Your task to perform on an android device: change the clock style Image 0: 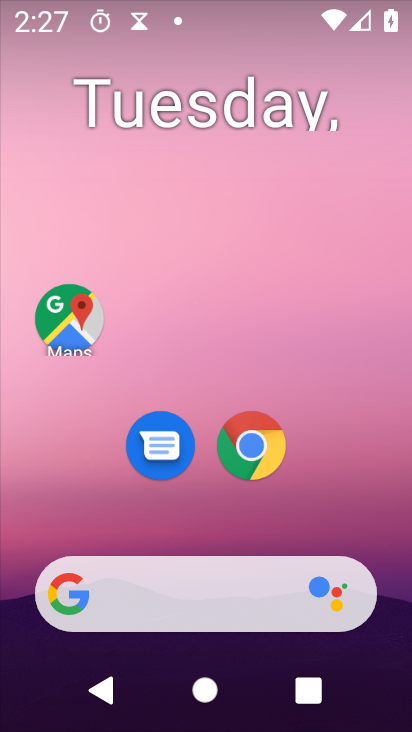
Step 0: drag from (326, 573) to (266, 38)
Your task to perform on an android device: change the clock style Image 1: 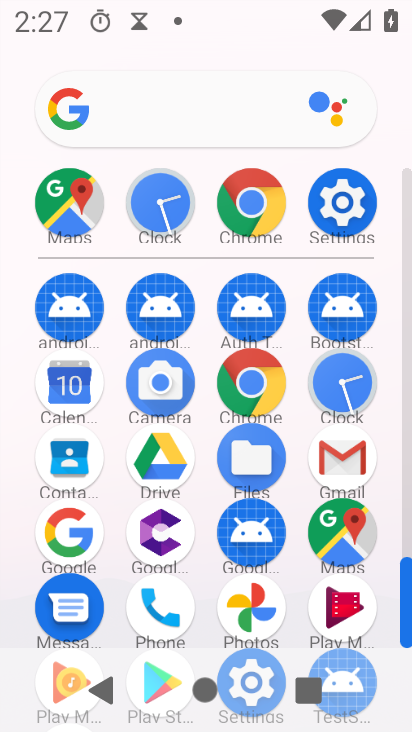
Step 1: click (343, 398)
Your task to perform on an android device: change the clock style Image 2: 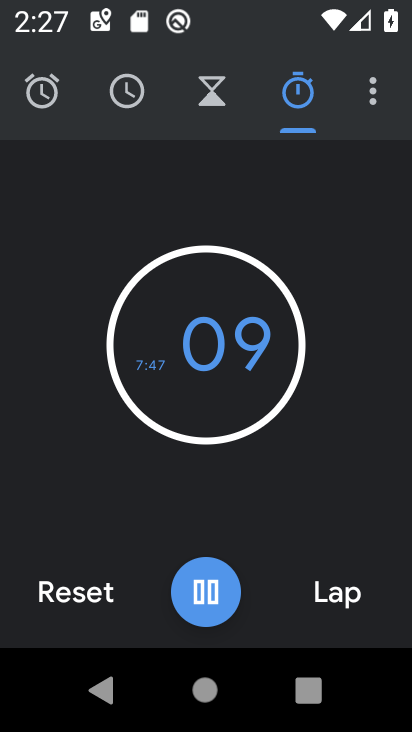
Step 2: click (385, 91)
Your task to perform on an android device: change the clock style Image 3: 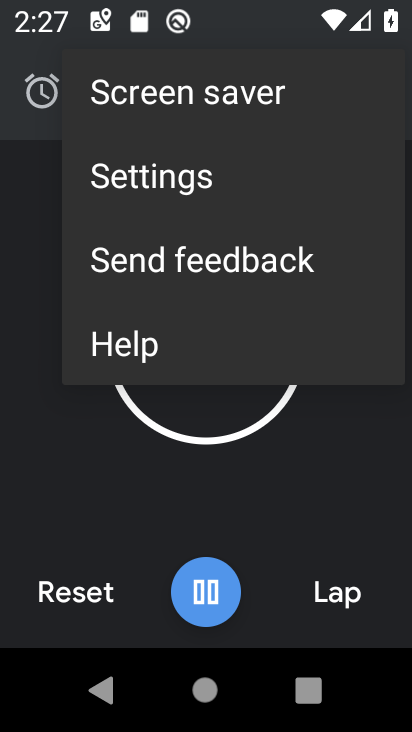
Step 3: click (299, 173)
Your task to perform on an android device: change the clock style Image 4: 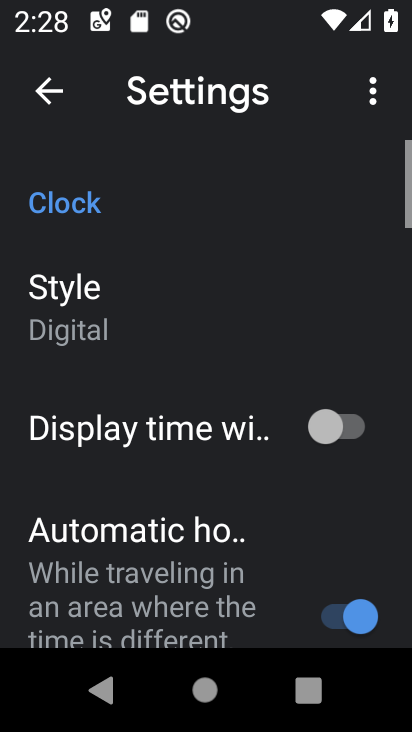
Step 4: click (190, 303)
Your task to perform on an android device: change the clock style Image 5: 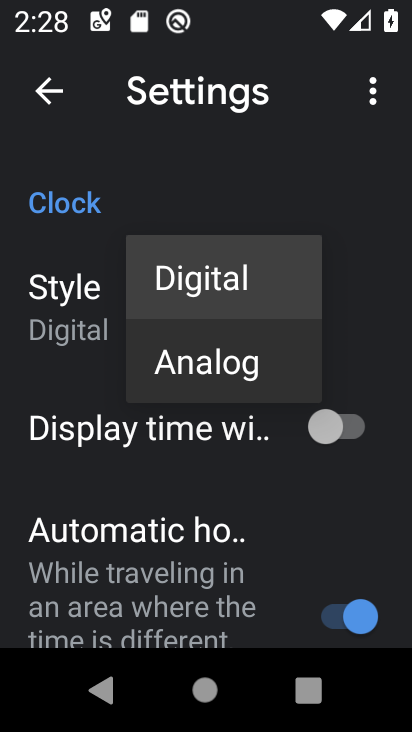
Step 5: click (351, 219)
Your task to perform on an android device: change the clock style Image 6: 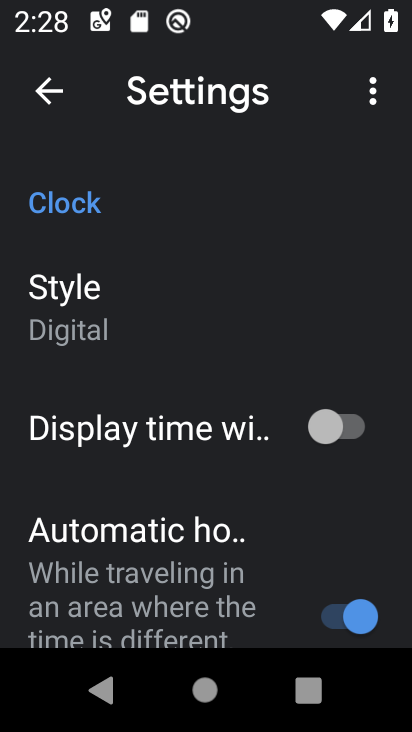
Step 6: click (208, 327)
Your task to perform on an android device: change the clock style Image 7: 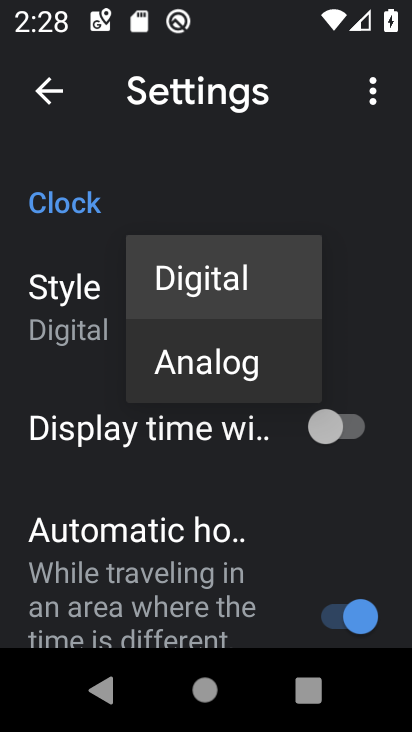
Step 7: click (264, 177)
Your task to perform on an android device: change the clock style Image 8: 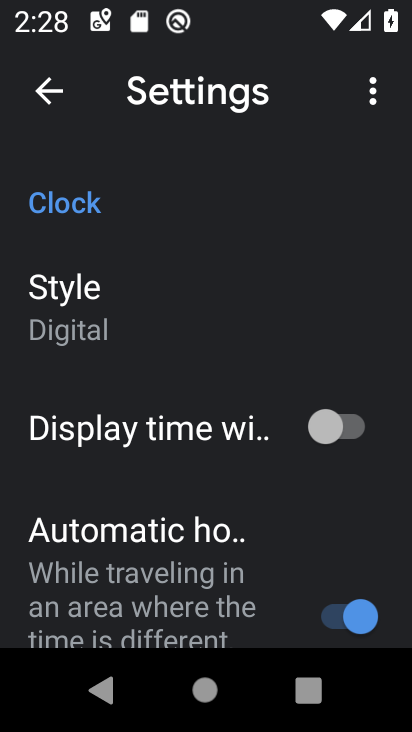
Step 8: click (228, 320)
Your task to perform on an android device: change the clock style Image 9: 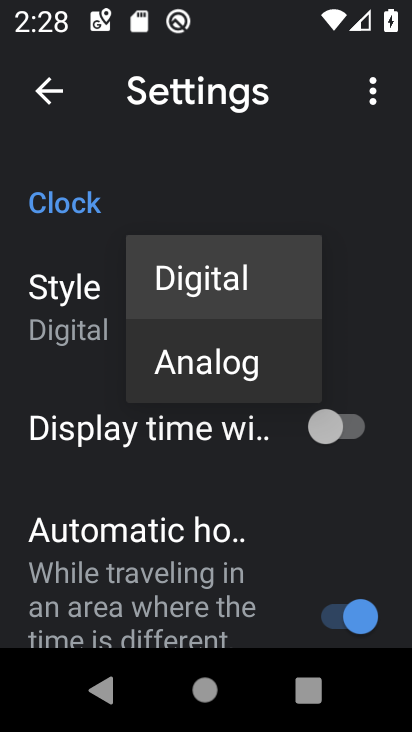
Step 9: click (217, 354)
Your task to perform on an android device: change the clock style Image 10: 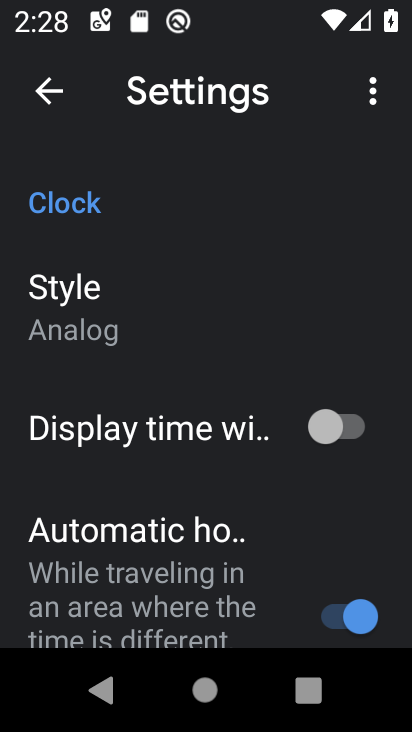
Step 10: task complete